Your task to perform on an android device: What is the recent news? Image 0: 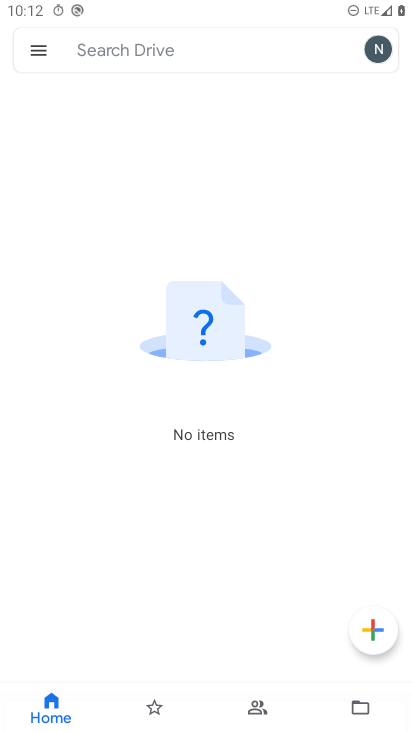
Step 0: press home button
Your task to perform on an android device: What is the recent news? Image 1: 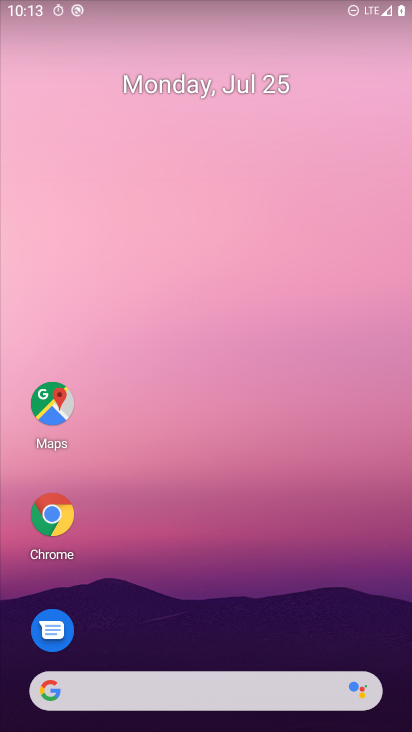
Step 1: click (63, 689)
Your task to perform on an android device: What is the recent news? Image 2: 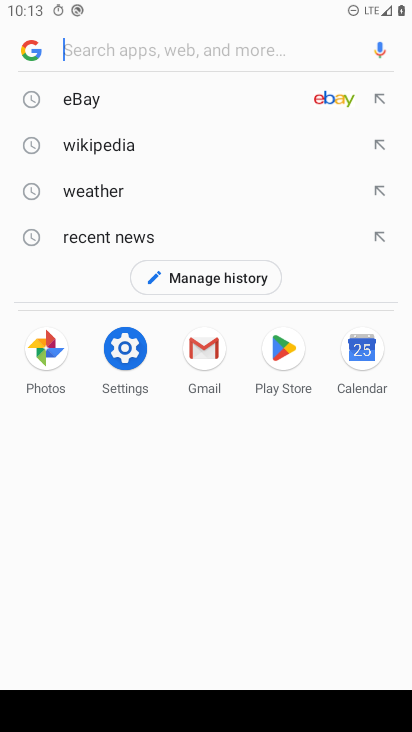
Step 2: type "What is the recent news?"
Your task to perform on an android device: What is the recent news? Image 3: 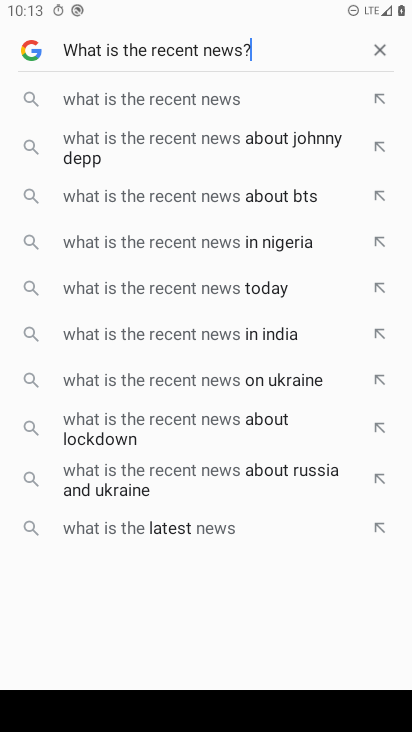
Step 3: type ""
Your task to perform on an android device: What is the recent news? Image 4: 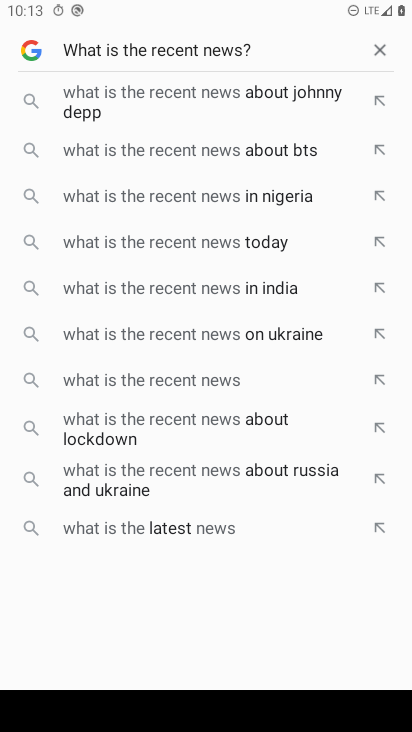
Step 4: type ""
Your task to perform on an android device: What is the recent news? Image 5: 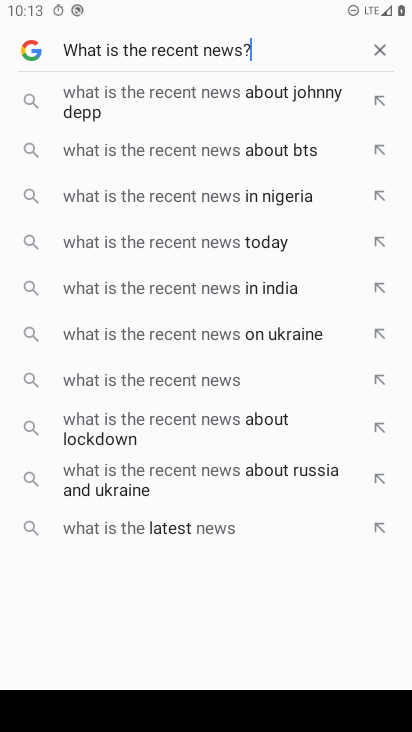
Step 5: task complete